Your task to perform on an android device: Search for seafood restaurants on Google Maps Image 0: 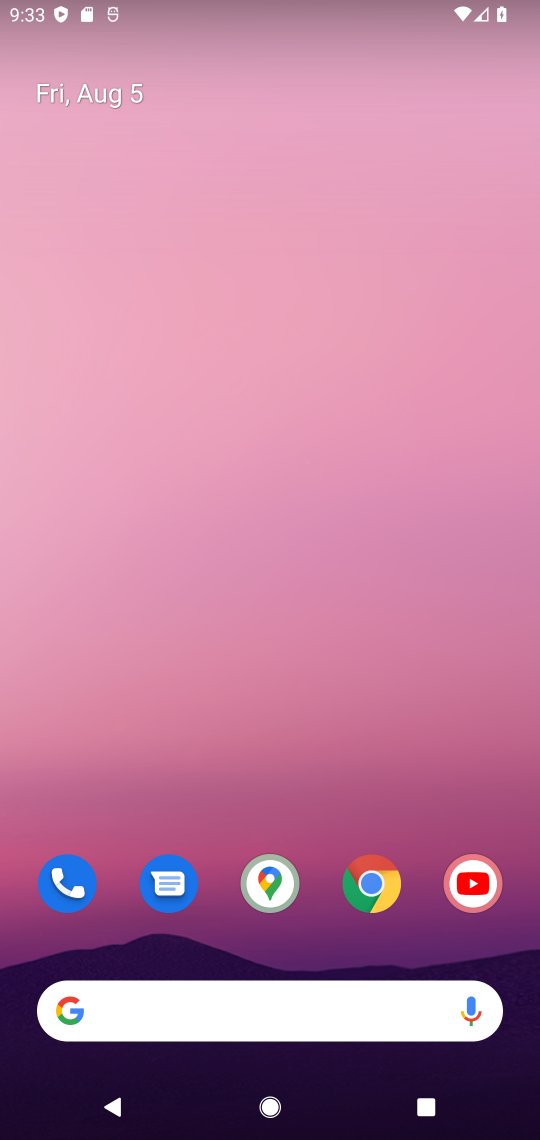
Step 0: click (273, 890)
Your task to perform on an android device: Search for seafood restaurants on Google Maps Image 1: 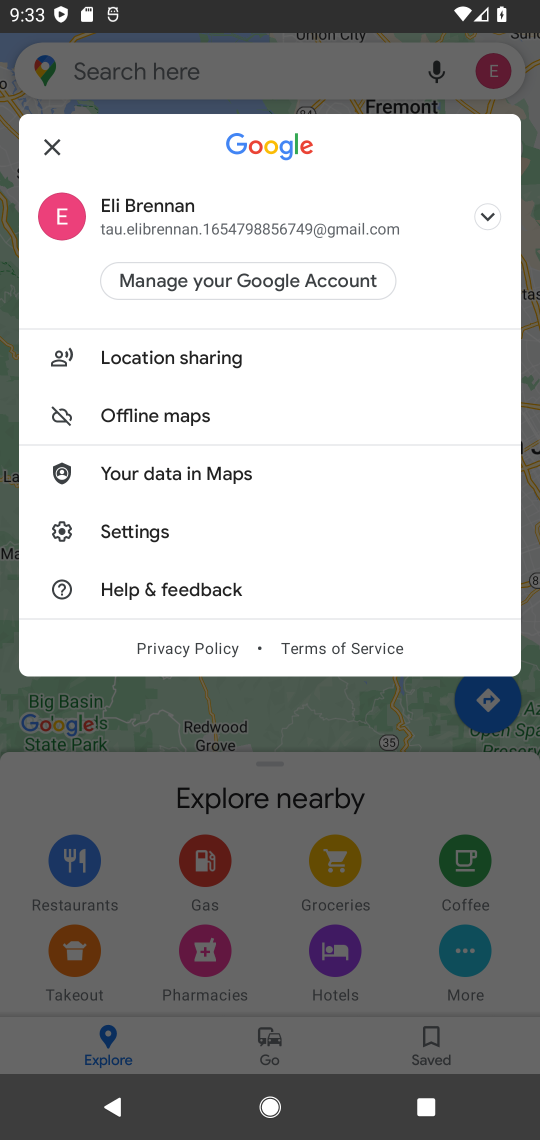
Step 1: press back button
Your task to perform on an android device: Search for seafood restaurants on Google Maps Image 2: 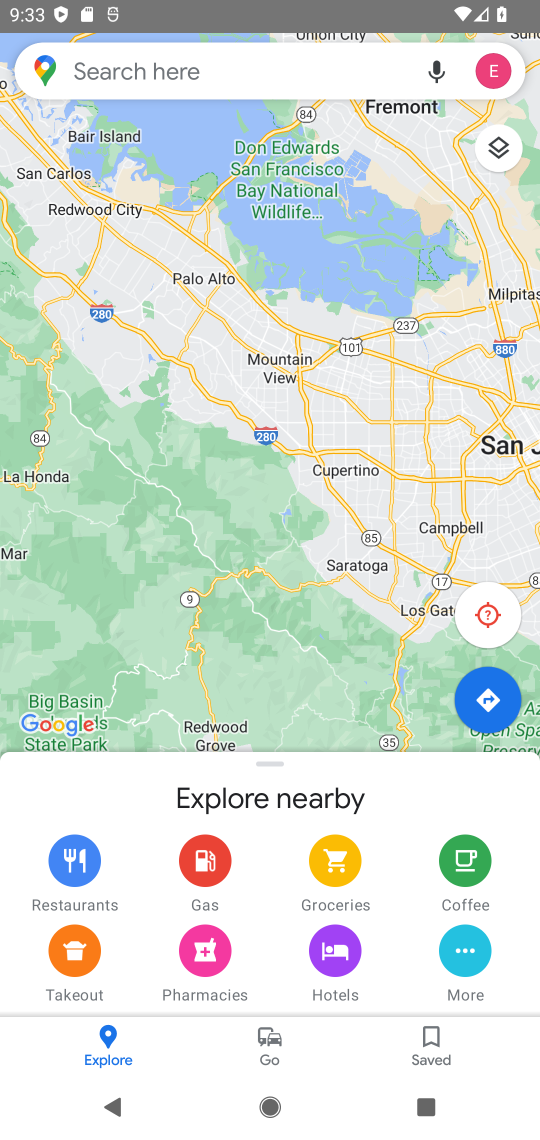
Step 2: press home button
Your task to perform on an android device: Search for seafood restaurants on Google Maps Image 3: 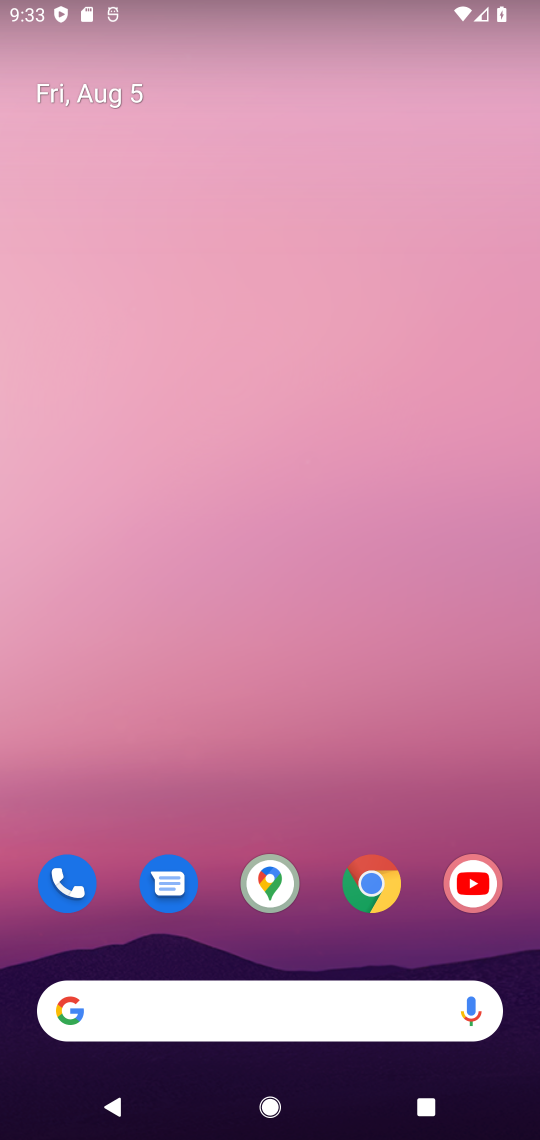
Step 3: click (269, 884)
Your task to perform on an android device: Search for seafood restaurants on Google Maps Image 4: 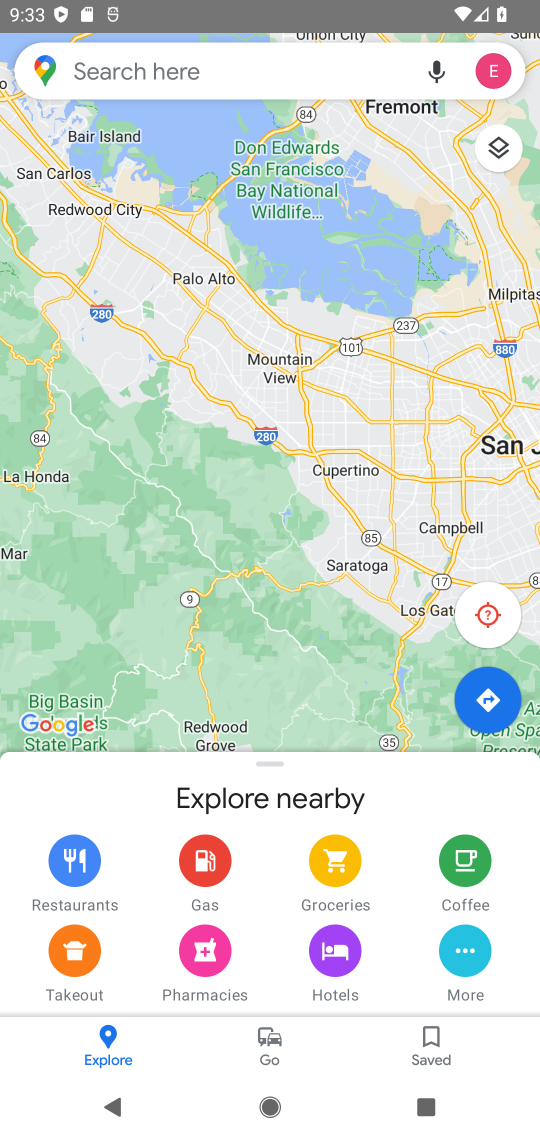
Step 4: click (161, 68)
Your task to perform on an android device: Search for seafood restaurants on Google Maps Image 5: 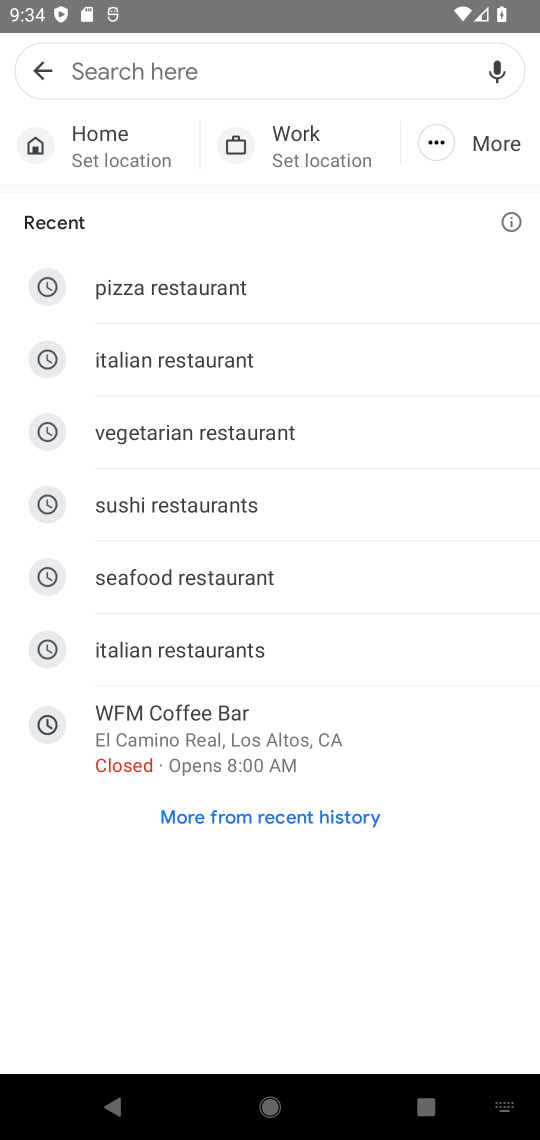
Step 5: type "seafood restaurants"
Your task to perform on an android device: Search for seafood restaurants on Google Maps Image 6: 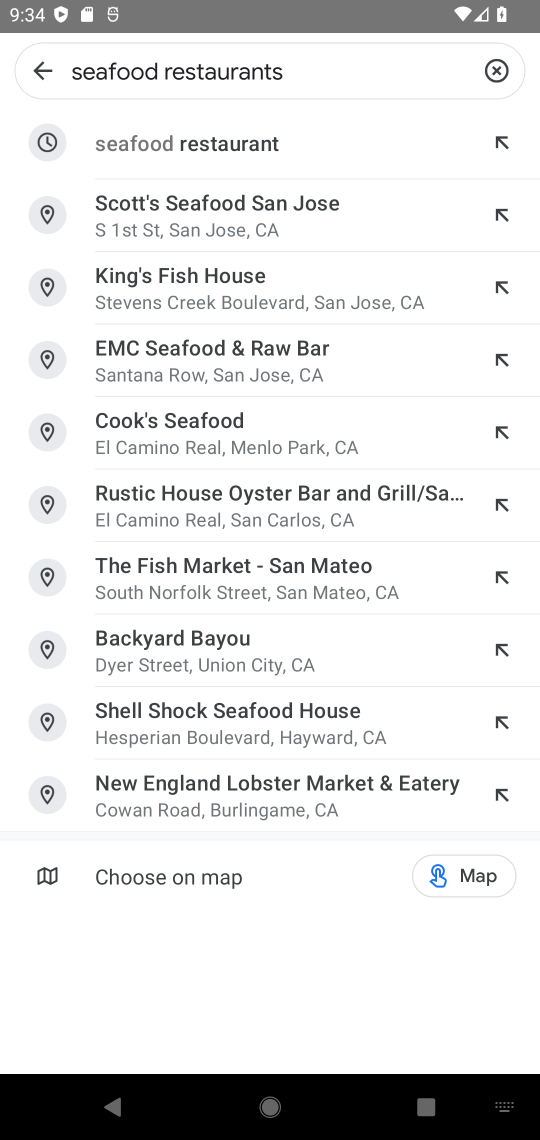
Step 6: click (215, 149)
Your task to perform on an android device: Search for seafood restaurants on Google Maps Image 7: 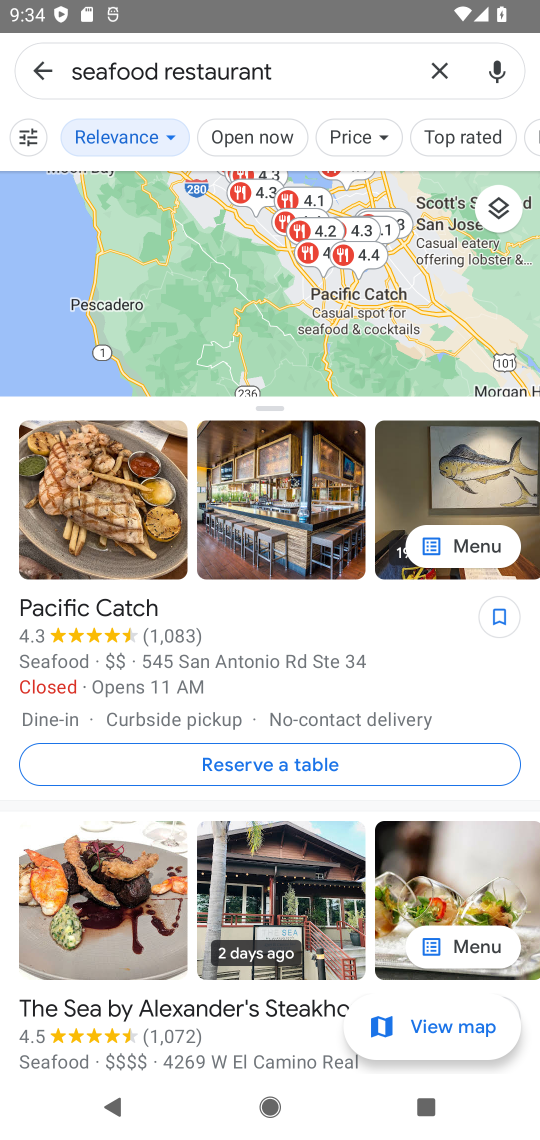
Step 7: task complete